Your task to perform on an android device: change the clock display to show seconds Image 0: 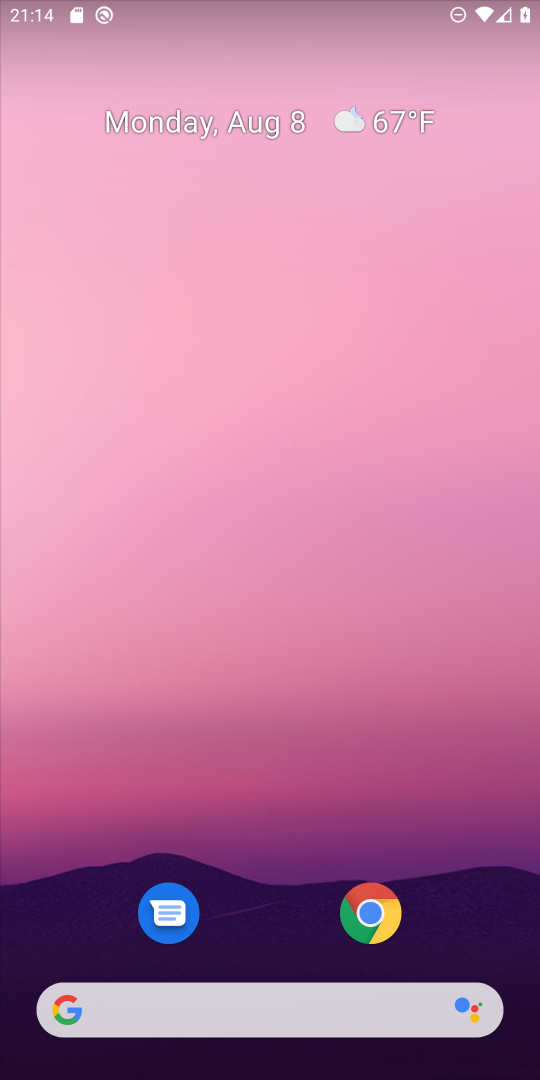
Step 0: drag from (294, 985) to (254, 150)
Your task to perform on an android device: change the clock display to show seconds Image 1: 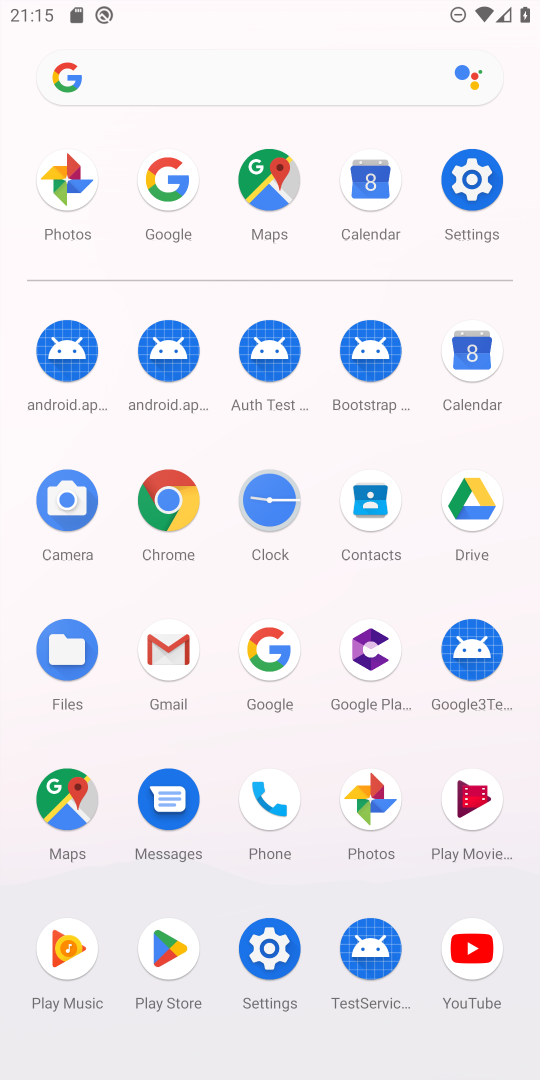
Step 1: click (269, 501)
Your task to perform on an android device: change the clock display to show seconds Image 2: 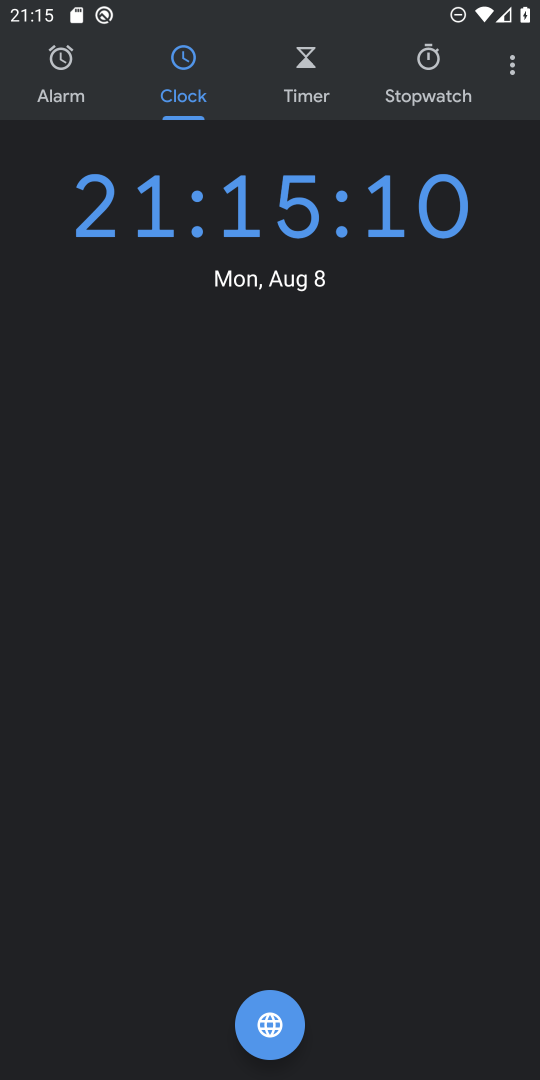
Step 2: click (509, 68)
Your task to perform on an android device: change the clock display to show seconds Image 3: 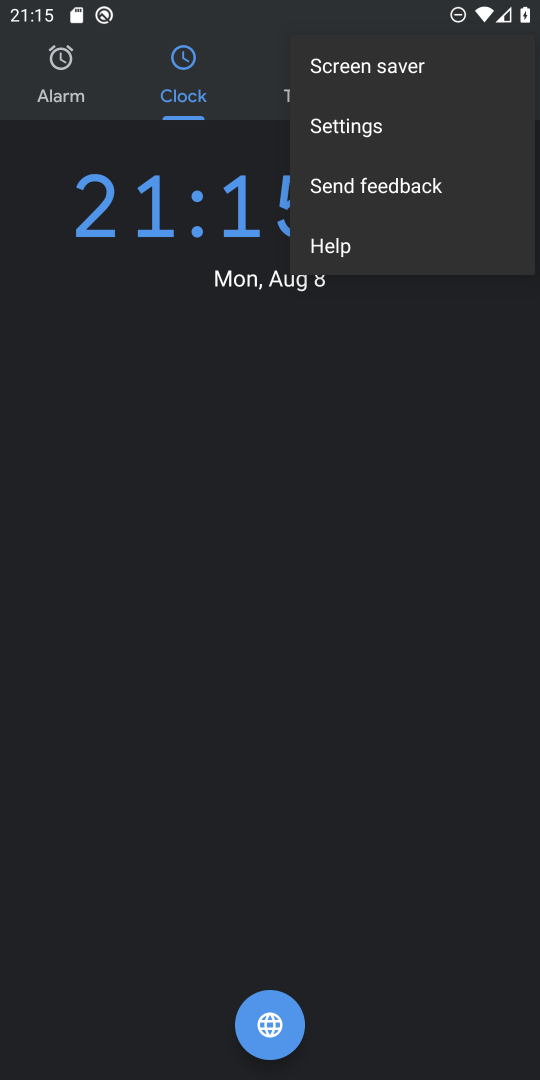
Step 3: click (366, 131)
Your task to perform on an android device: change the clock display to show seconds Image 4: 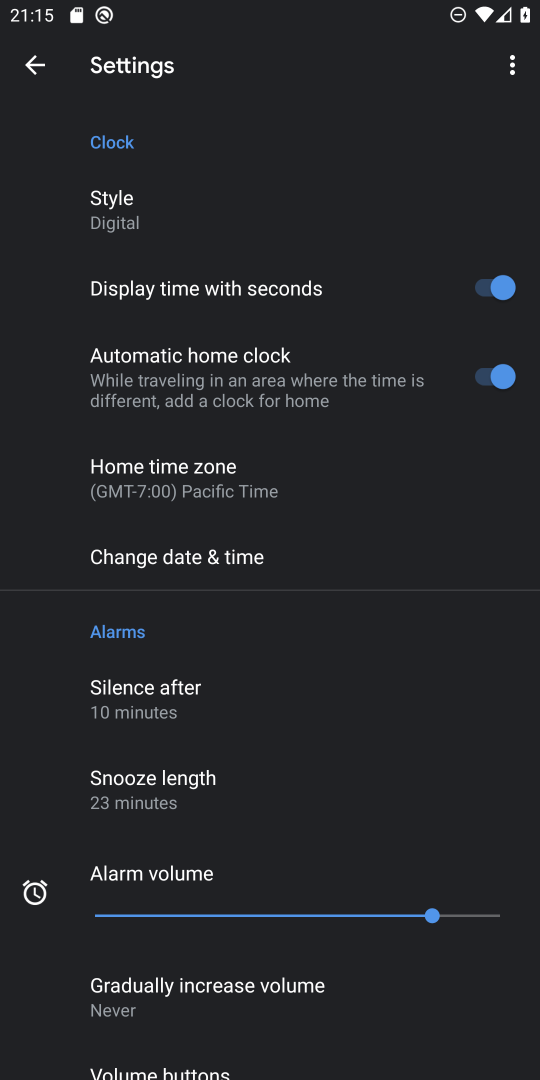
Step 4: click (487, 283)
Your task to perform on an android device: change the clock display to show seconds Image 5: 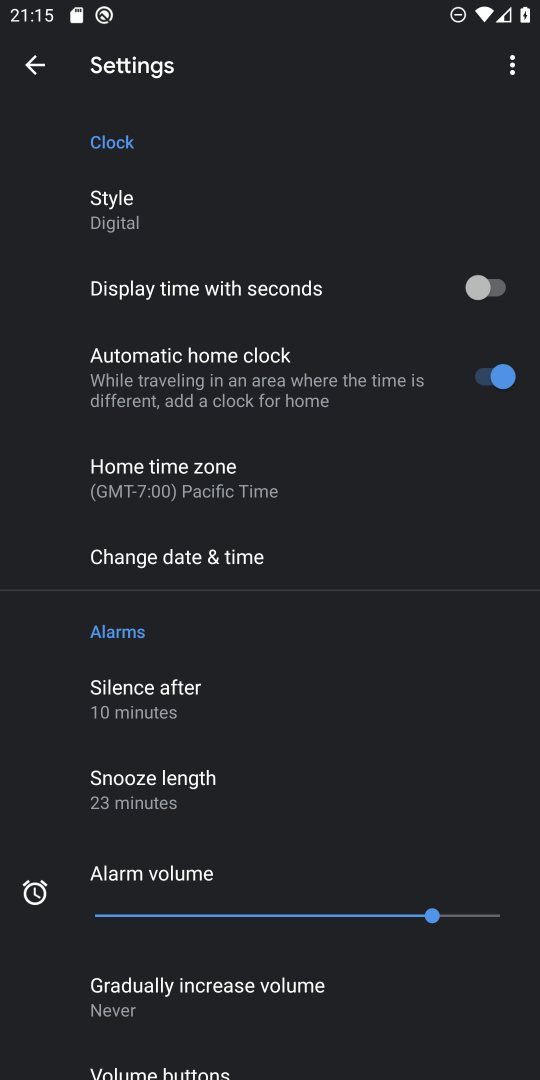
Step 5: task complete